Your task to perform on an android device: change notifications settings Image 0: 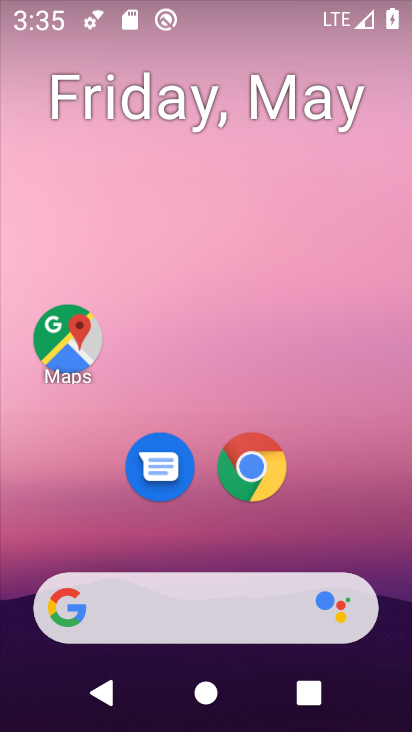
Step 0: drag from (297, 450) to (152, 44)
Your task to perform on an android device: change notifications settings Image 1: 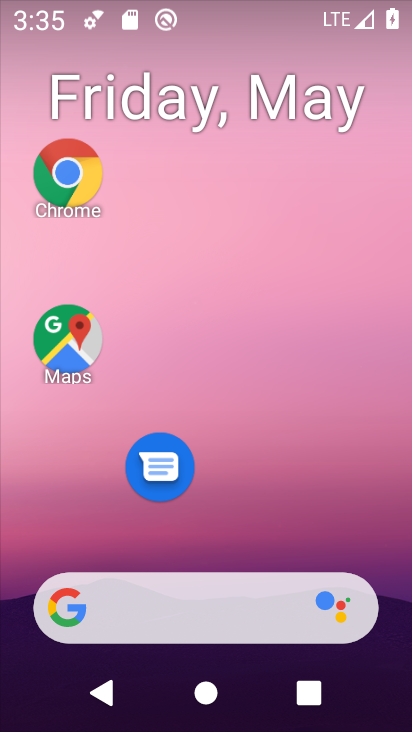
Step 1: drag from (289, 434) to (235, 56)
Your task to perform on an android device: change notifications settings Image 2: 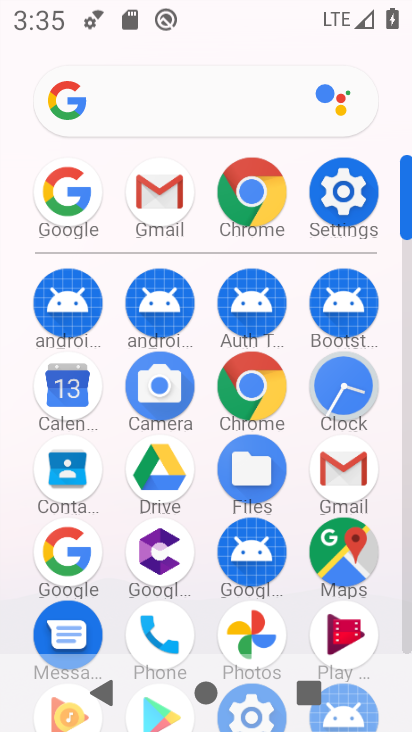
Step 2: click (335, 162)
Your task to perform on an android device: change notifications settings Image 3: 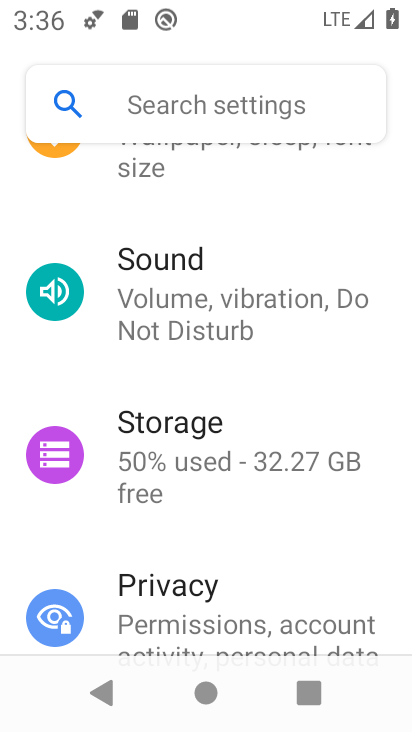
Step 3: drag from (241, 309) to (237, 539)
Your task to perform on an android device: change notifications settings Image 4: 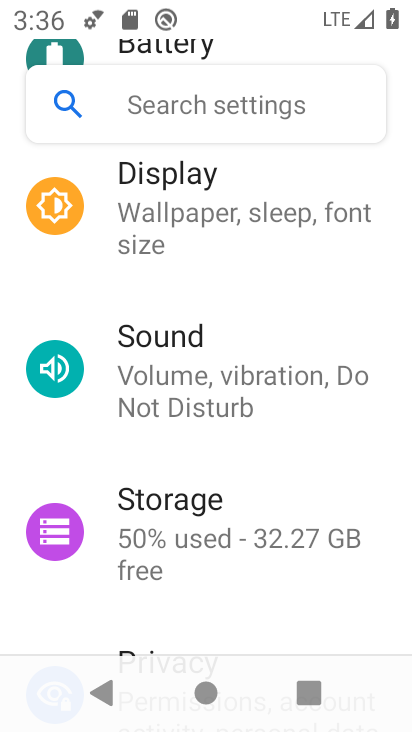
Step 4: drag from (241, 262) to (231, 547)
Your task to perform on an android device: change notifications settings Image 5: 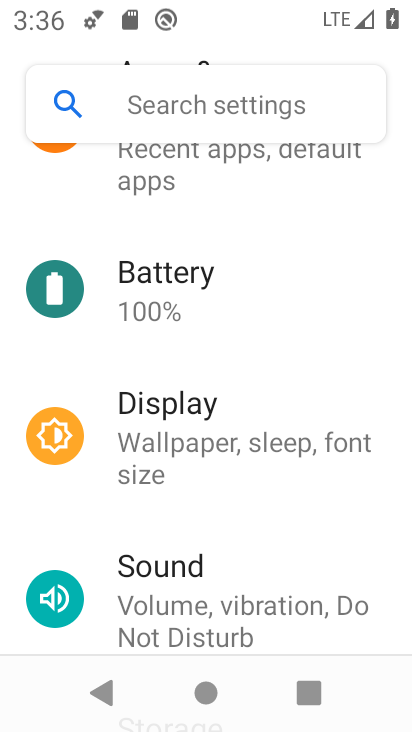
Step 5: drag from (259, 276) to (242, 554)
Your task to perform on an android device: change notifications settings Image 6: 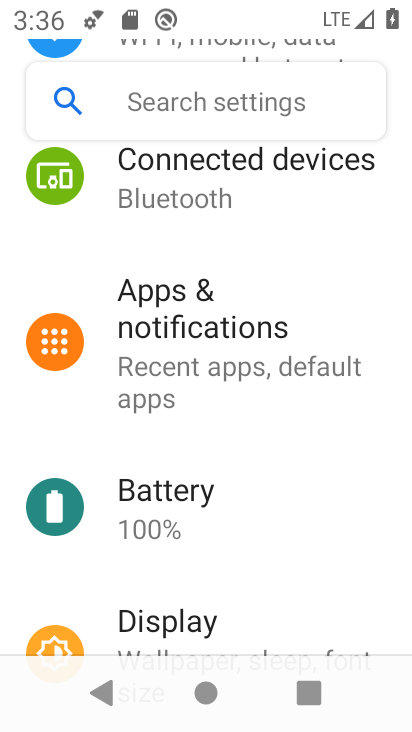
Step 6: click (236, 339)
Your task to perform on an android device: change notifications settings Image 7: 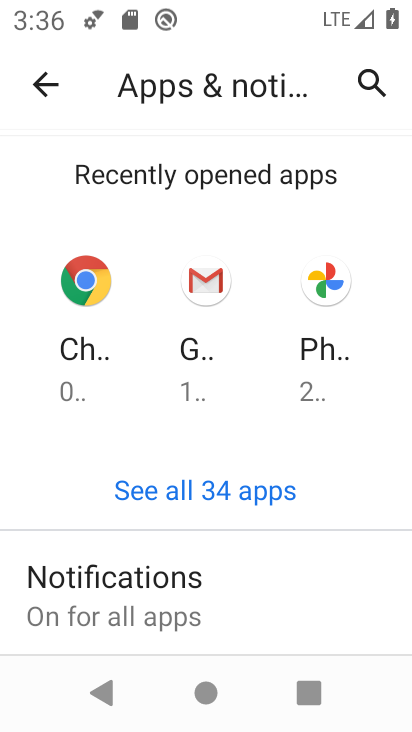
Step 7: click (171, 591)
Your task to perform on an android device: change notifications settings Image 8: 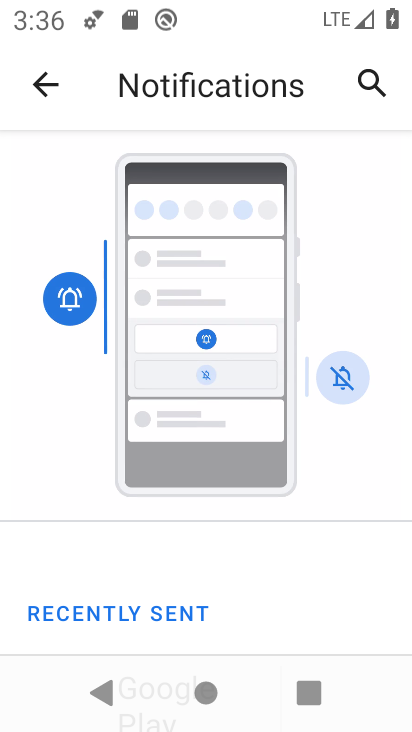
Step 8: drag from (220, 563) to (198, 265)
Your task to perform on an android device: change notifications settings Image 9: 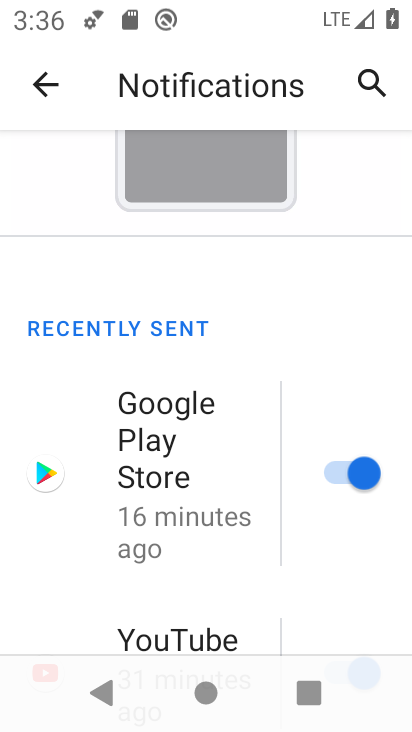
Step 9: drag from (198, 545) to (211, 318)
Your task to perform on an android device: change notifications settings Image 10: 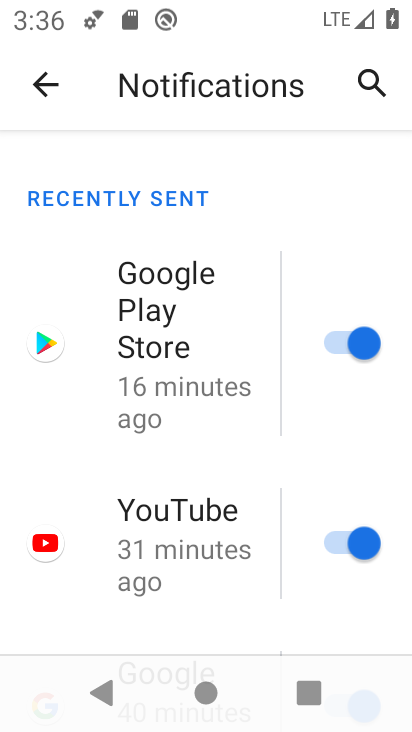
Step 10: click (342, 336)
Your task to perform on an android device: change notifications settings Image 11: 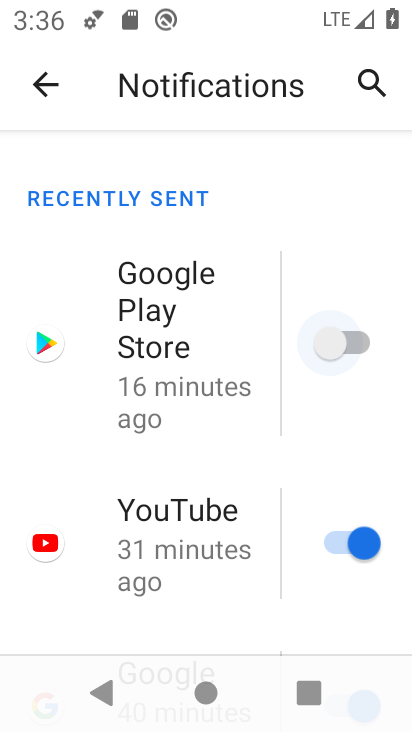
Step 11: click (353, 540)
Your task to perform on an android device: change notifications settings Image 12: 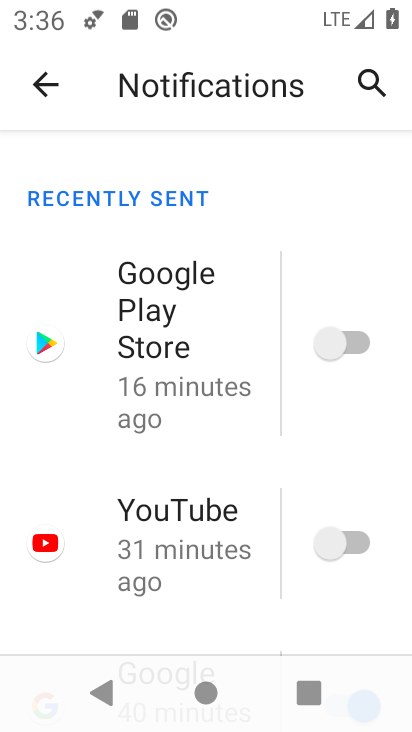
Step 12: drag from (216, 570) to (220, 253)
Your task to perform on an android device: change notifications settings Image 13: 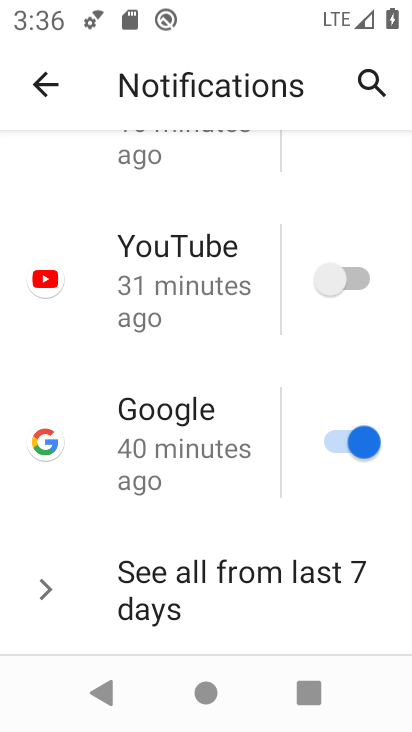
Step 13: click (333, 444)
Your task to perform on an android device: change notifications settings Image 14: 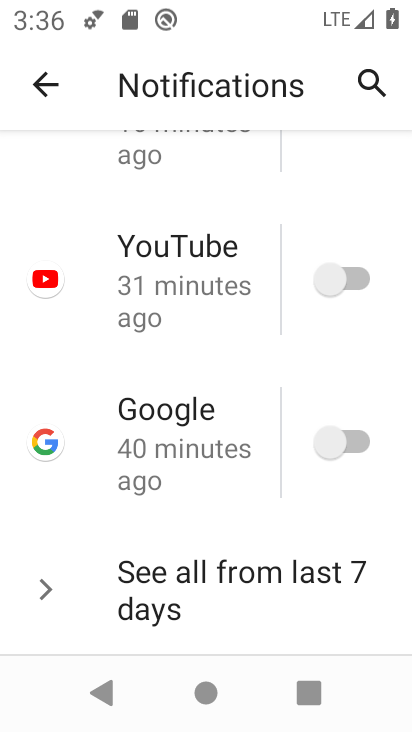
Step 14: task complete